Your task to perform on an android device: Show me popular games on the Play Store Image 0: 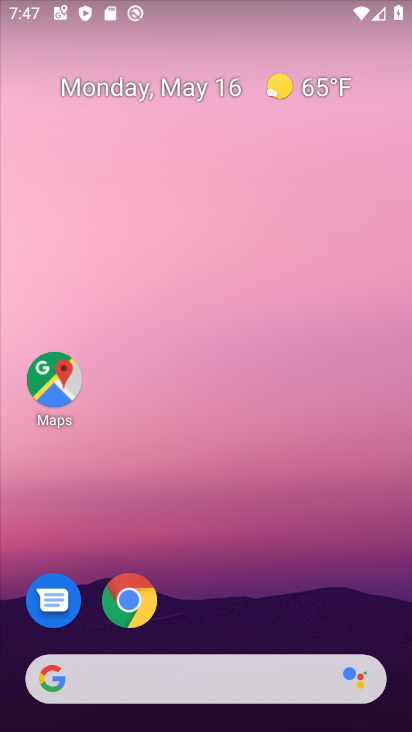
Step 0: drag from (226, 636) to (339, 105)
Your task to perform on an android device: Show me popular games on the Play Store Image 1: 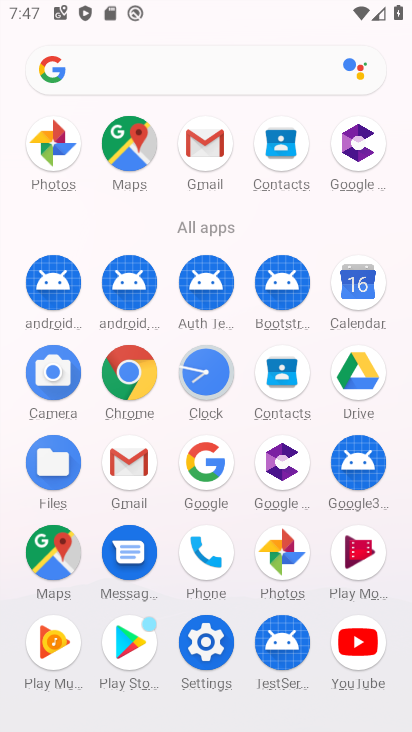
Step 1: click (133, 648)
Your task to perform on an android device: Show me popular games on the Play Store Image 2: 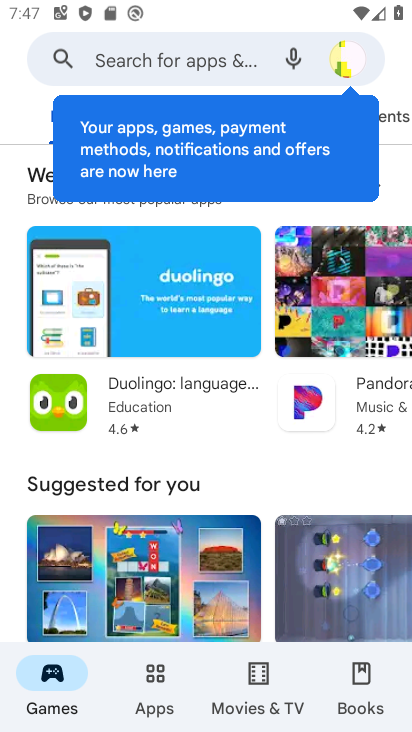
Step 2: drag from (212, 611) to (360, 123)
Your task to perform on an android device: Show me popular games on the Play Store Image 3: 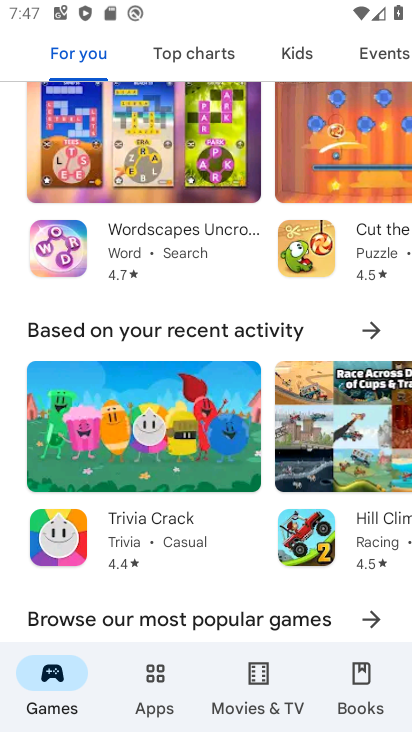
Step 3: click (372, 614)
Your task to perform on an android device: Show me popular games on the Play Store Image 4: 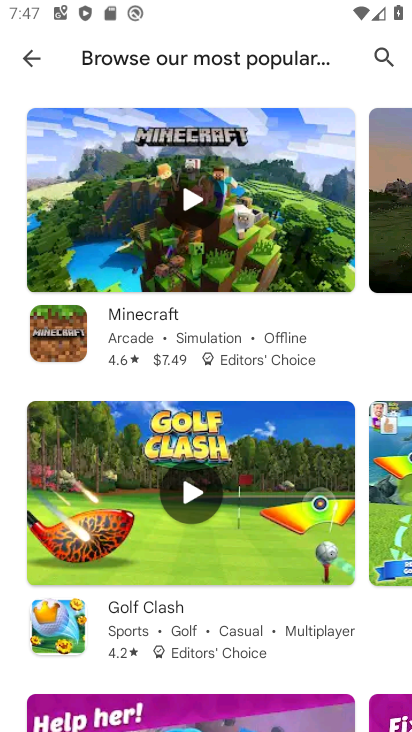
Step 4: task complete